Your task to perform on an android device: clear history in the chrome app Image 0: 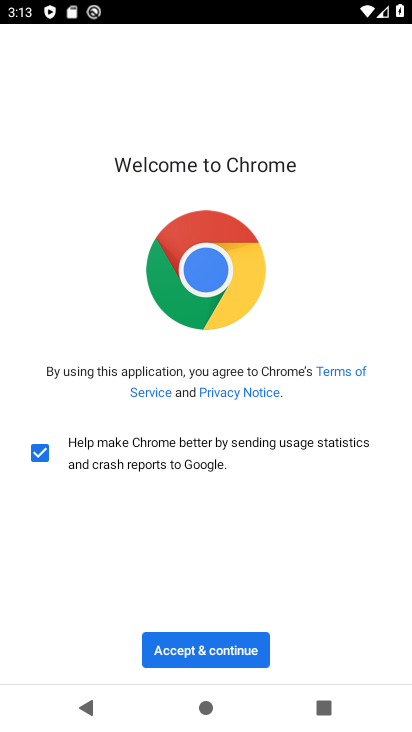
Step 0: click (187, 657)
Your task to perform on an android device: clear history in the chrome app Image 1: 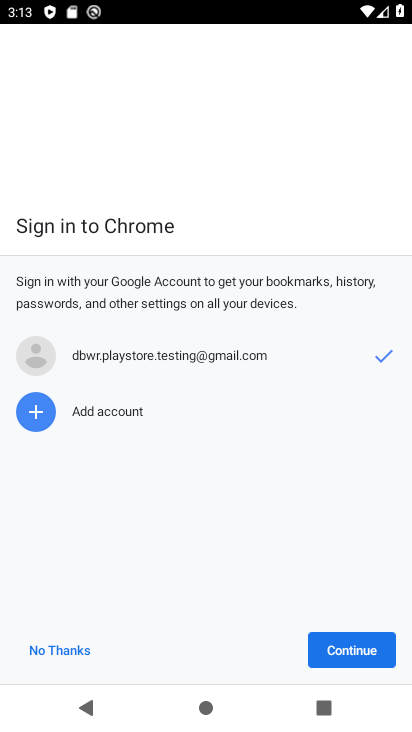
Step 1: click (358, 646)
Your task to perform on an android device: clear history in the chrome app Image 2: 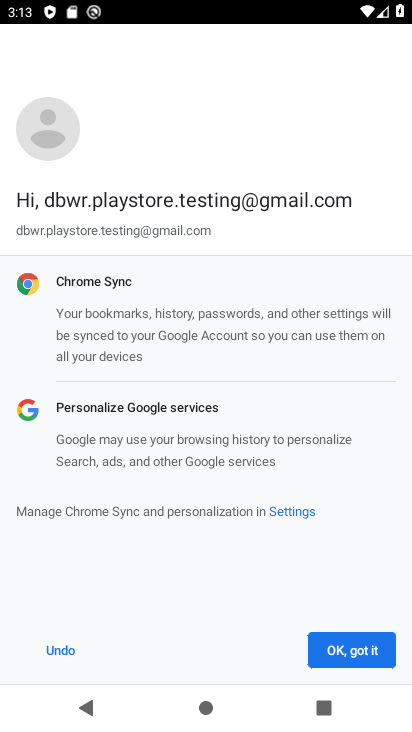
Step 2: click (358, 646)
Your task to perform on an android device: clear history in the chrome app Image 3: 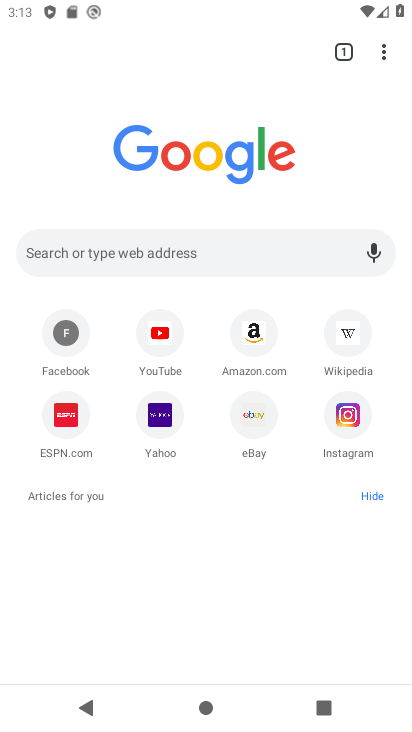
Step 3: click (383, 51)
Your task to perform on an android device: clear history in the chrome app Image 4: 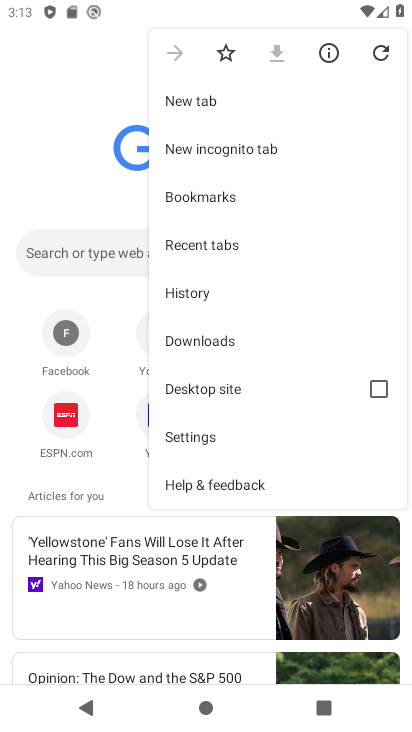
Step 4: click (191, 293)
Your task to perform on an android device: clear history in the chrome app Image 5: 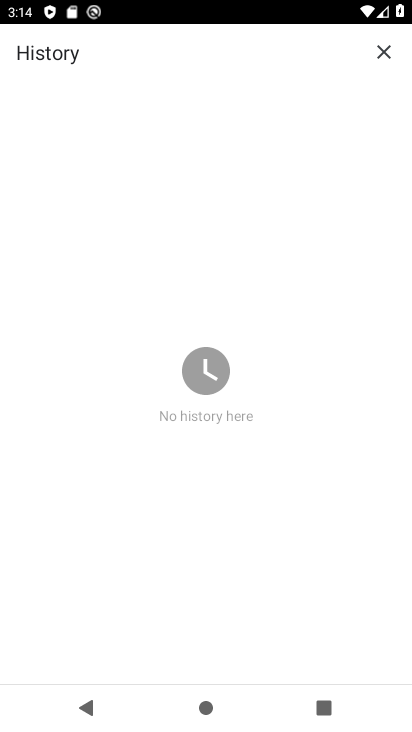
Step 5: task complete